Your task to perform on an android device: Is it going to rain this weekend? Image 0: 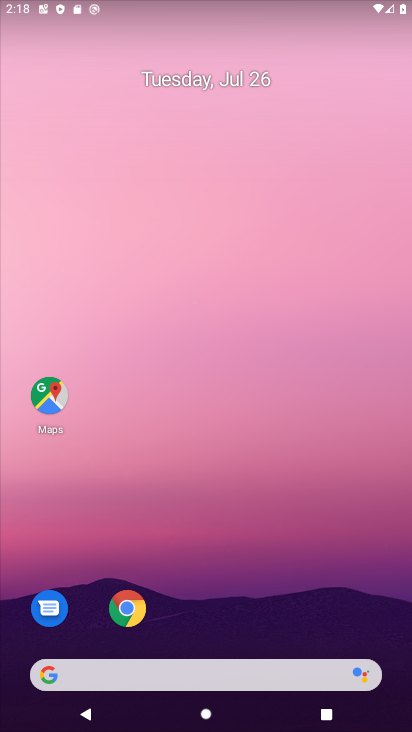
Step 0: click (245, 684)
Your task to perform on an android device: Is it going to rain this weekend? Image 1: 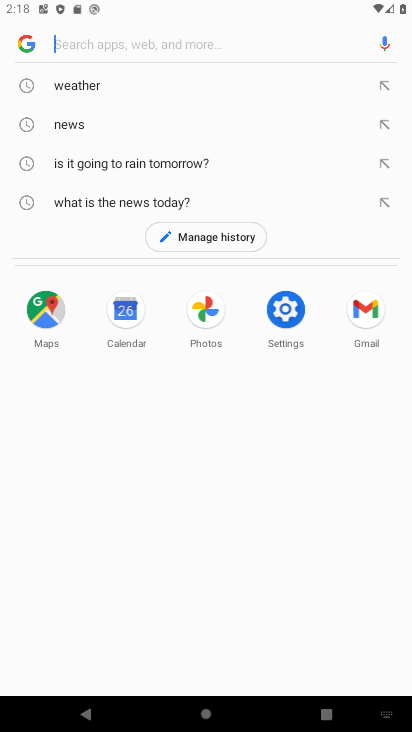
Step 1: click (154, 89)
Your task to perform on an android device: Is it going to rain this weekend? Image 2: 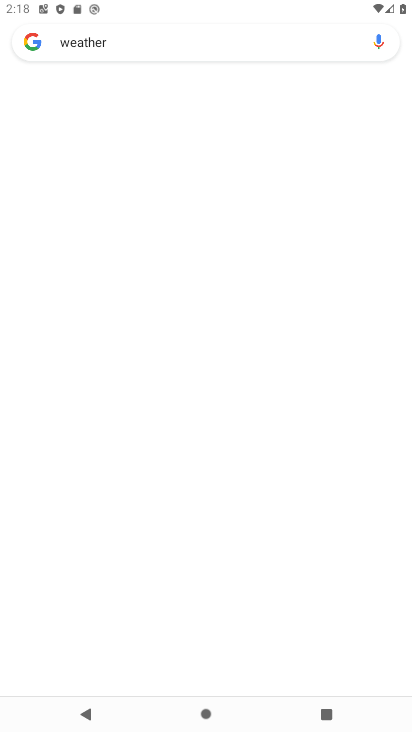
Step 2: task complete